Your task to perform on an android device: Open Google Chrome and open the bookmarks view Image 0: 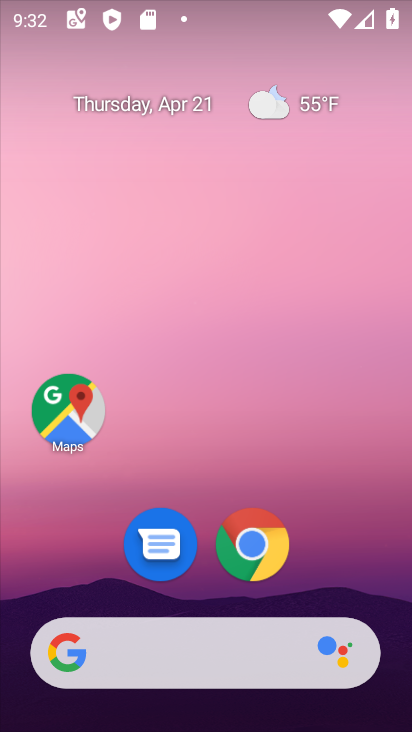
Step 0: drag from (351, 505) to (265, 14)
Your task to perform on an android device: Open Google Chrome and open the bookmarks view Image 1: 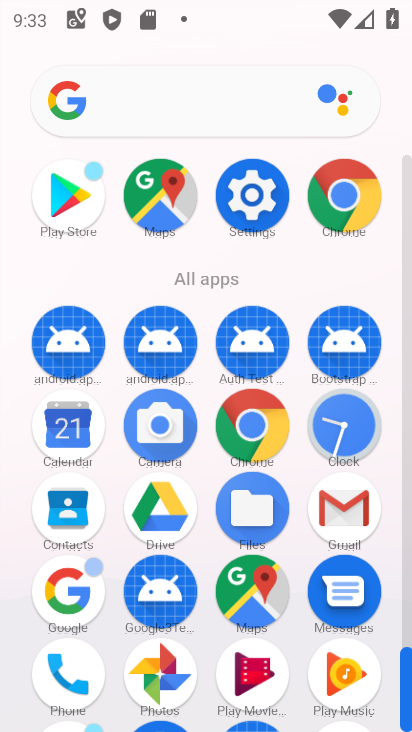
Step 1: click (348, 198)
Your task to perform on an android device: Open Google Chrome and open the bookmarks view Image 2: 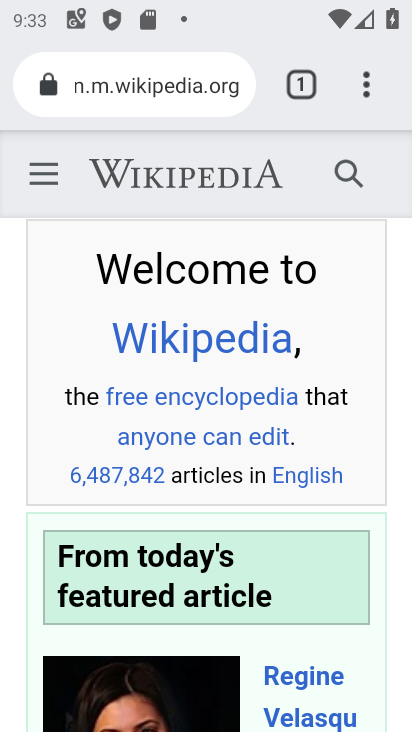
Step 2: task complete